Your task to perform on an android device: add a label to a message in the gmail app Image 0: 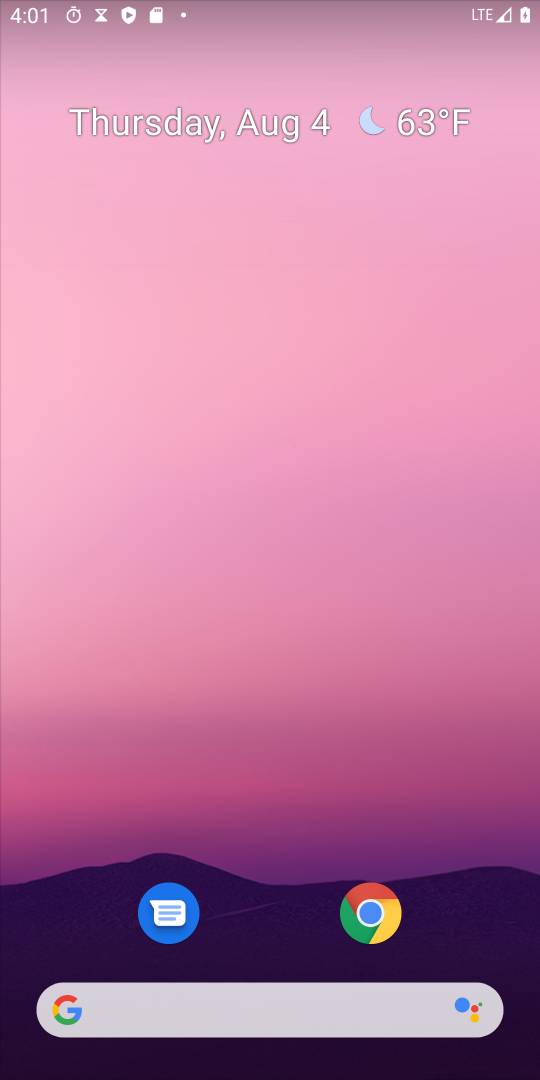
Step 0: drag from (355, 925) to (334, 253)
Your task to perform on an android device: add a label to a message in the gmail app Image 1: 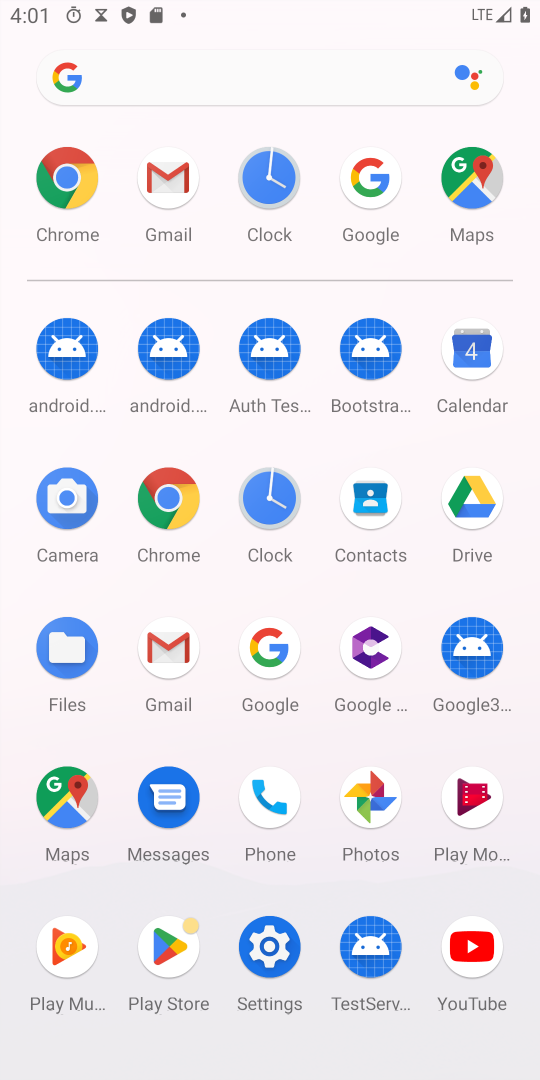
Step 1: click (152, 632)
Your task to perform on an android device: add a label to a message in the gmail app Image 2: 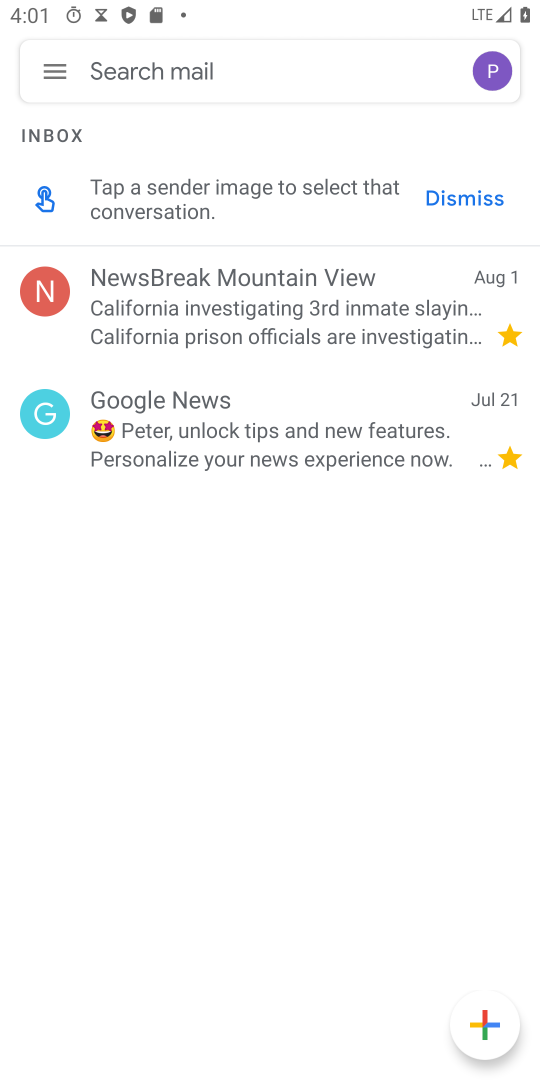
Step 2: click (416, 316)
Your task to perform on an android device: add a label to a message in the gmail app Image 3: 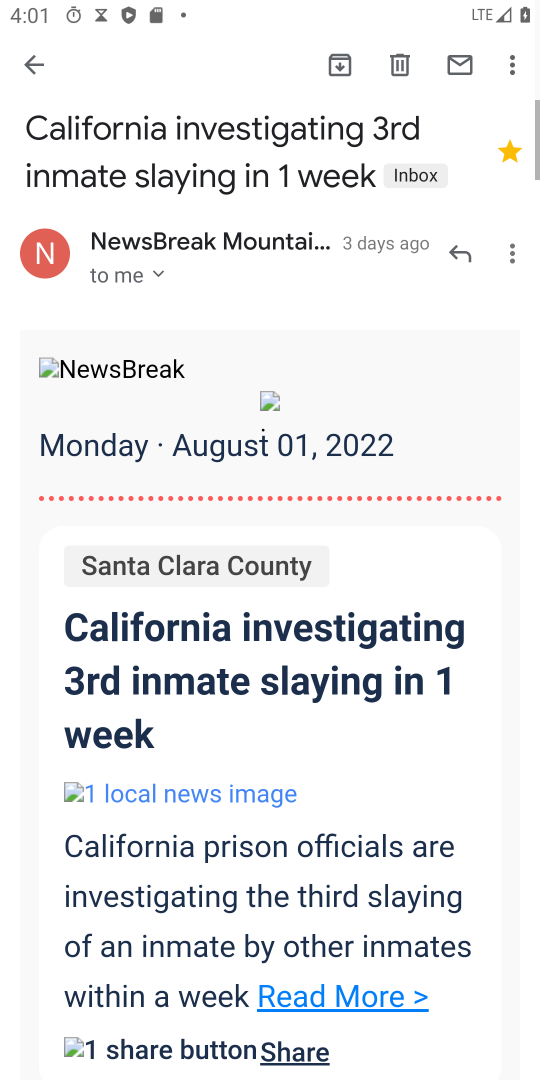
Step 3: click (517, 55)
Your task to perform on an android device: add a label to a message in the gmail app Image 4: 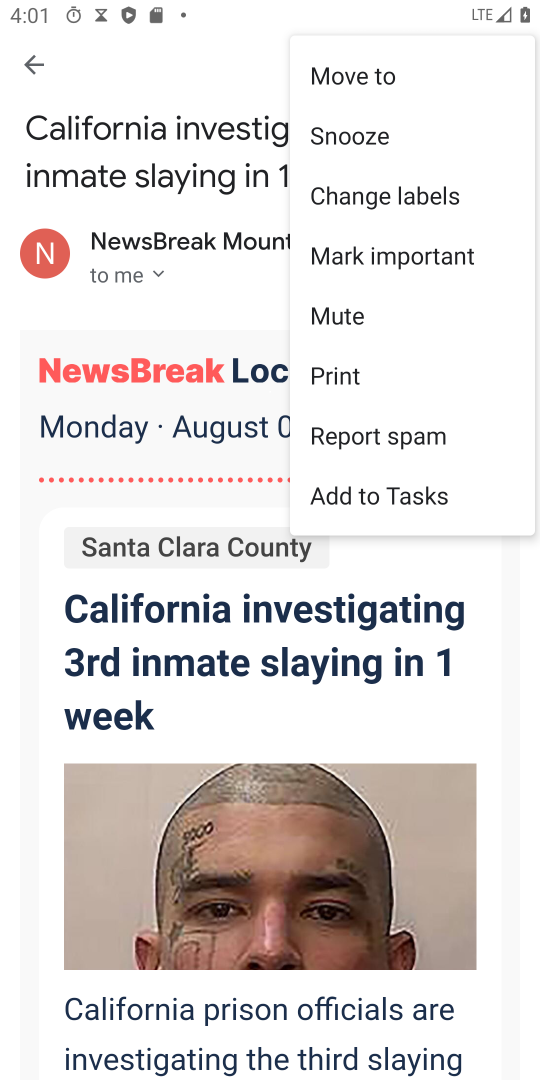
Step 4: click (411, 201)
Your task to perform on an android device: add a label to a message in the gmail app Image 5: 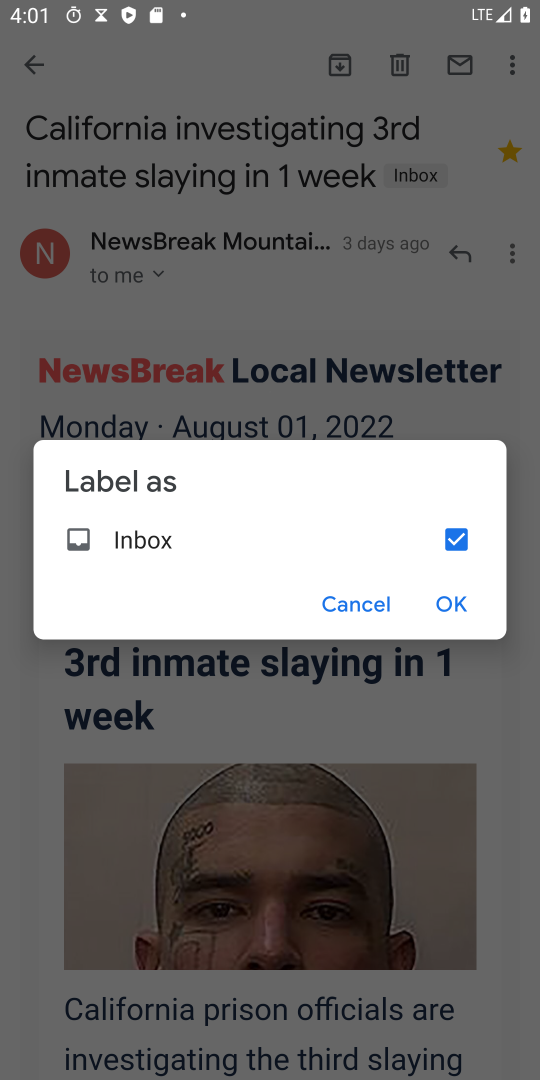
Step 5: click (456, 588)
Your task to perform on an android device: add a label to a message in the gmail app Image 6: 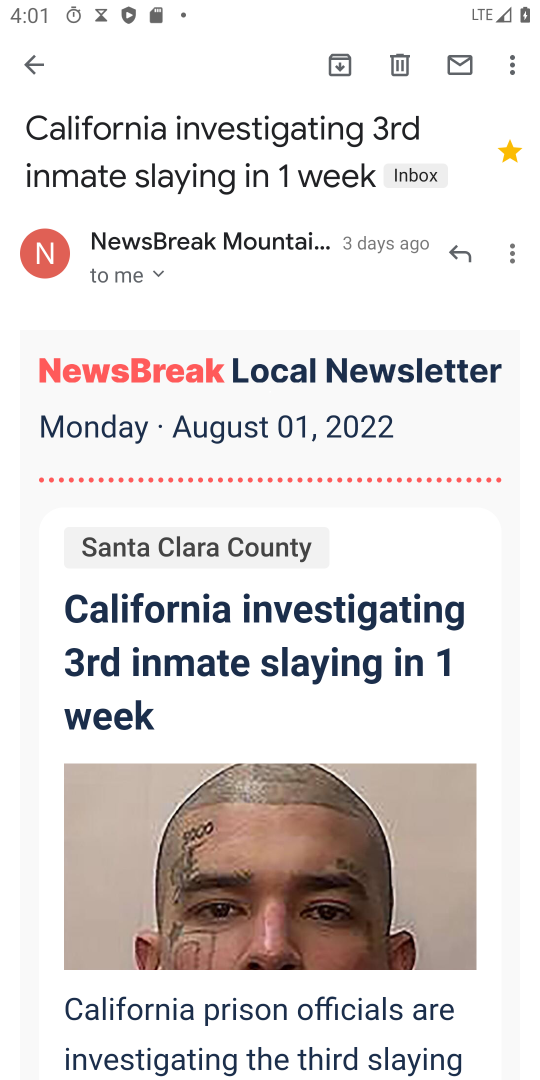
Step 6: task complete